Your task to perform on an android device: toggle data saver in the chrome app Image 0: 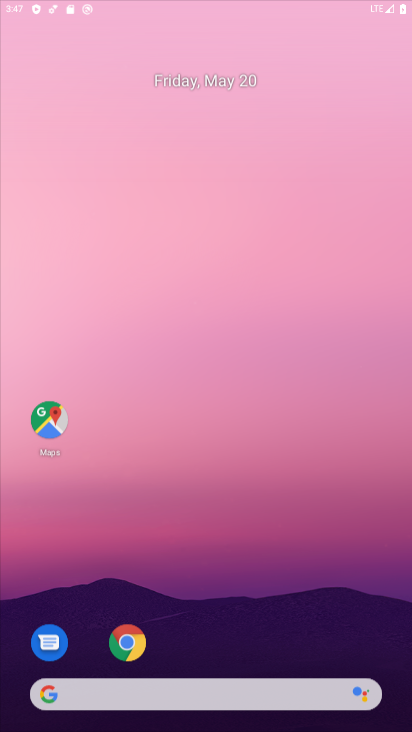
Step 0: drag from (212, 385) to (208, 176)
Your task to perform on an android device: toggle data saver in the chrome app Image 1: 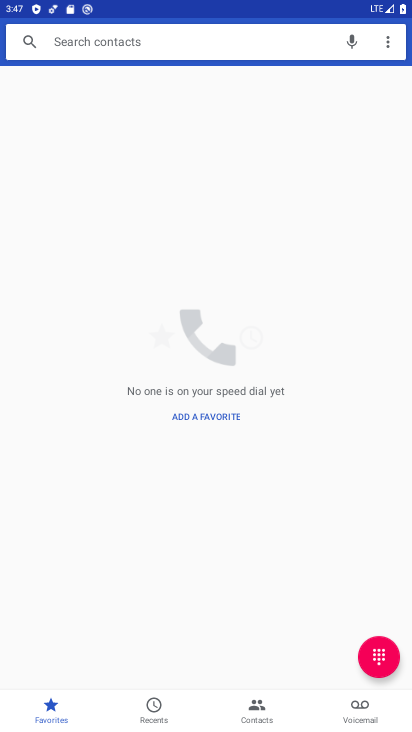
Step 1: press home button
Your task to perform on an android device: toggle data saver in the chrome app Image 2: 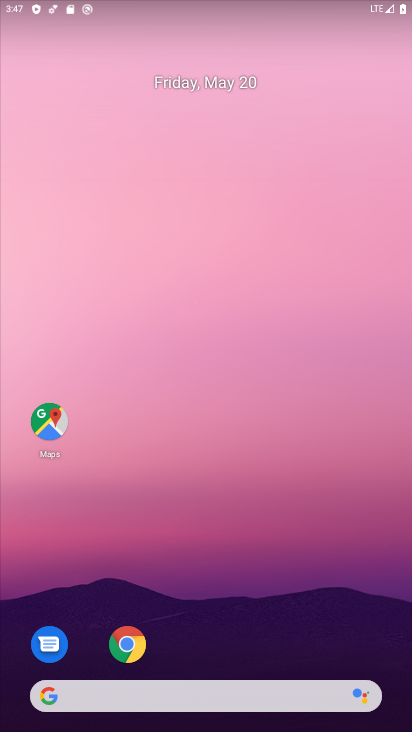
Step 2: drag from (247, 727) to (216, 253)
Your task to perform on an android device: toggle data saver in the chrome app Image 3: 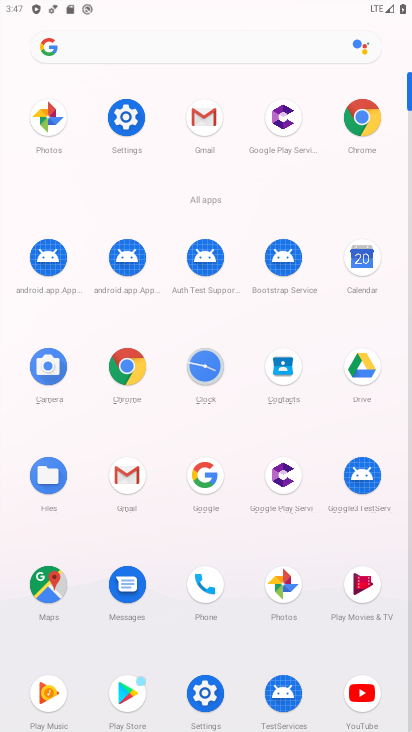
Step 3: click (127, 358)
Your task to perform on an android device: toggle data saver in the chrome app Image 4: 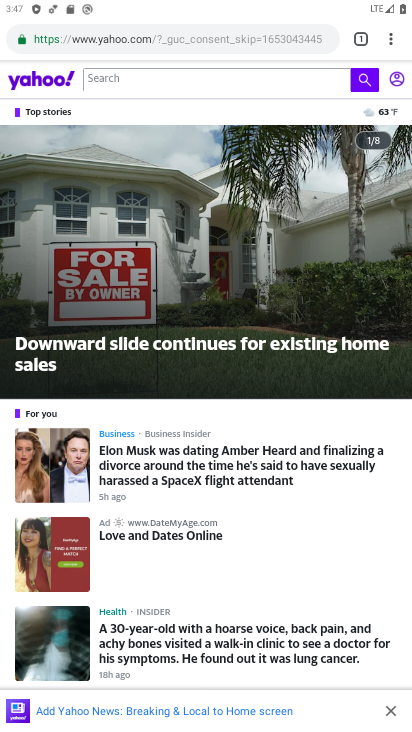
Step 4: click (396, 44)
Your task to perform on an android device: toggle data saver in the chrome app Image 5: 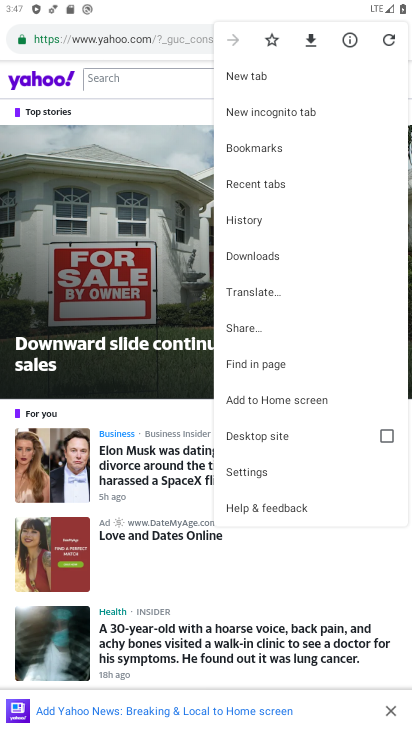
Step 5: click (263, 464)
Your task to perform on an android device: toggle data saver in the chrome app Image 6: 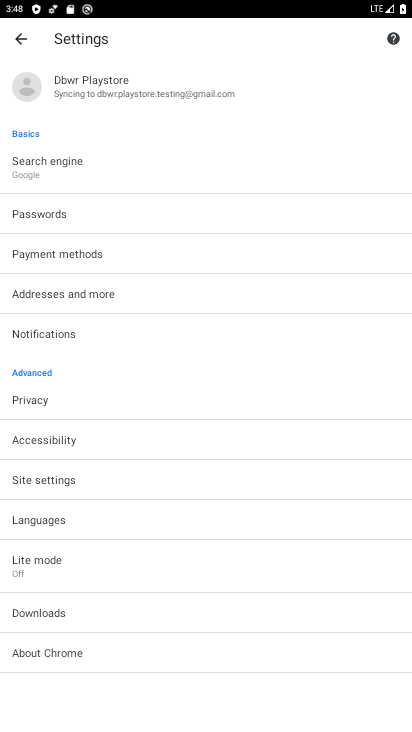
Step 6: click (42, 559)
Your task to perform on an android device: toggle data saver in the chrome app Image 7: 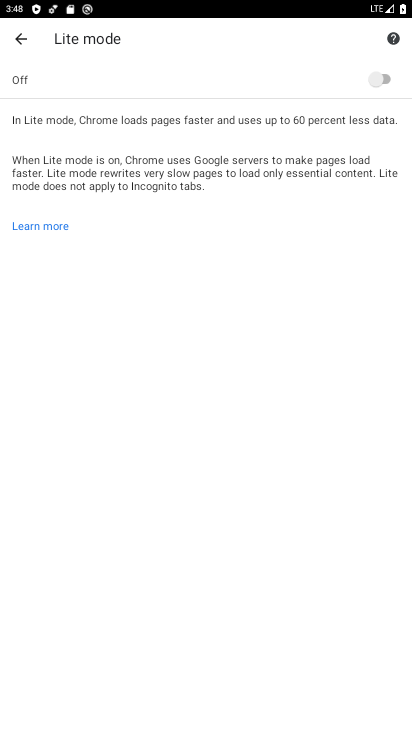
Step 7: task complete